Your task to perform on an android device: toggle show notifications on the lock screen Image 0: 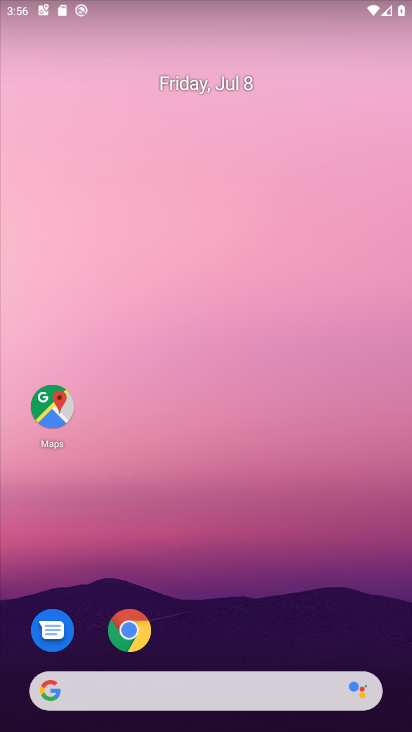
Step 0: drag from (349, 568) to (231, 72)
Your task to perform on an android device: toggle show notifications on the lock screen Image 1: 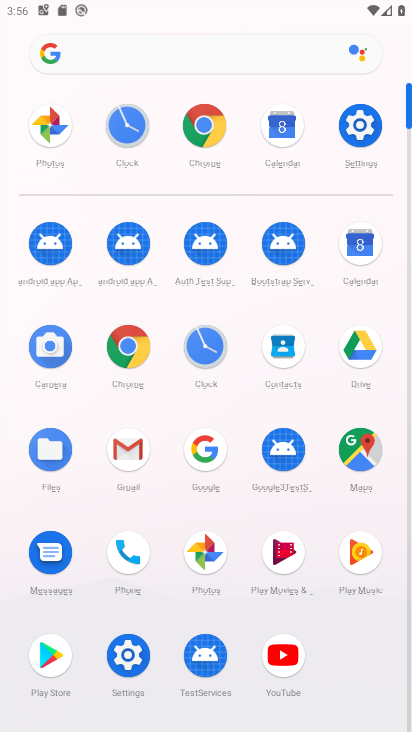
Step 1: click (362, 115)
Your task to perform on an android device: toggle show notifications on the lock screen Image 2: 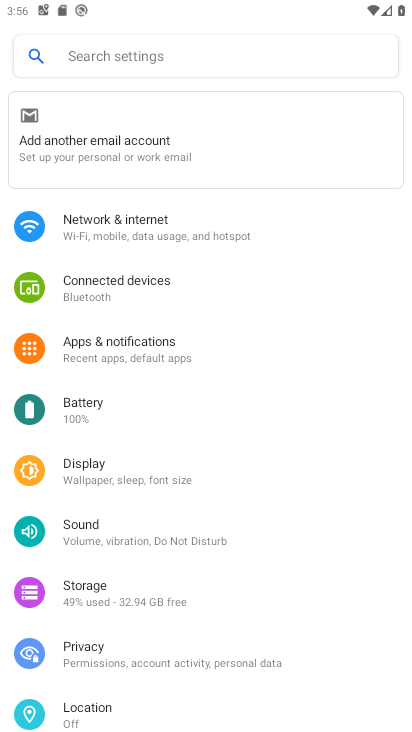
Step 2: click (153, 347)
Your task to perform on an android device: toggle show notifications on the lock screen Image 3: 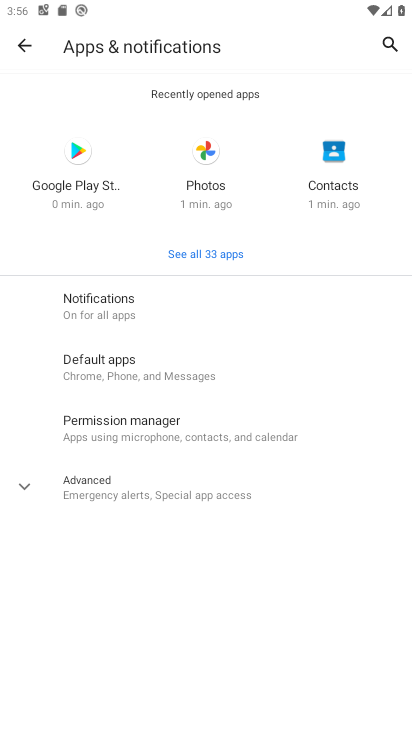
Step 3: click (121, 299)
Your task to perform on an android device: toggle show notifications on the lock screen Image 4: 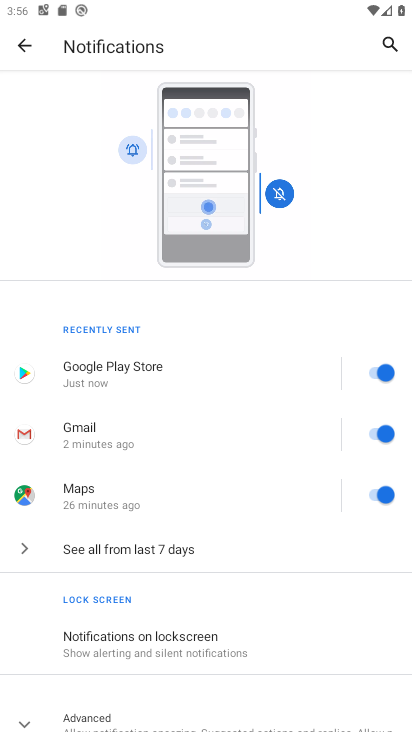
Step 4: click (196, 652)
Your task to perform on an android device: toggle show notifications on the lock screen Image 5: 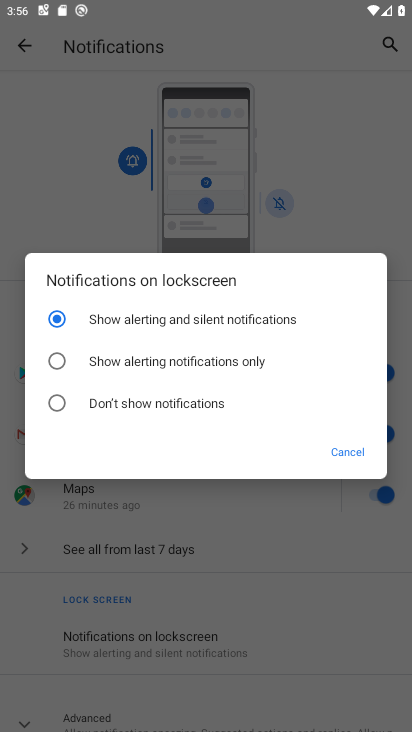
Step 5: click (123, 363)
Your task to perform on an android device: toggle show notifications on the lock screen Image 6: 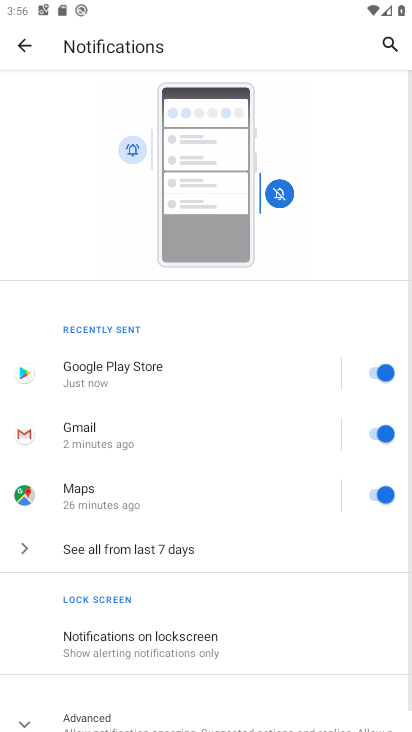
Step 6: task complete